Your task to perform on an android device: turn off wifi Image 0: 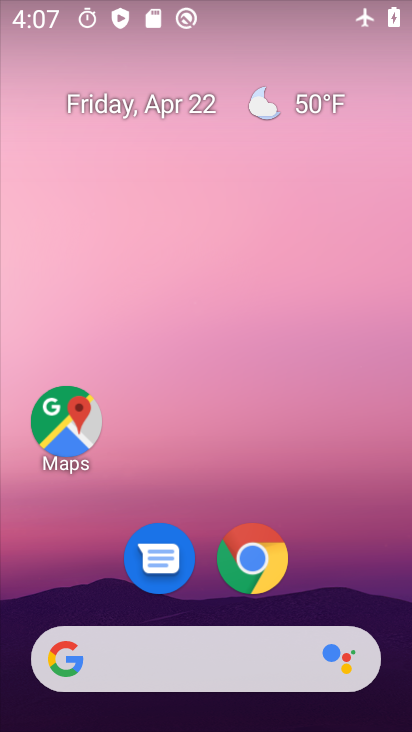
Step 0: drag from (283, 346) to (285, 184)
Your task to perform on an android device: turn off wifi Image 1: 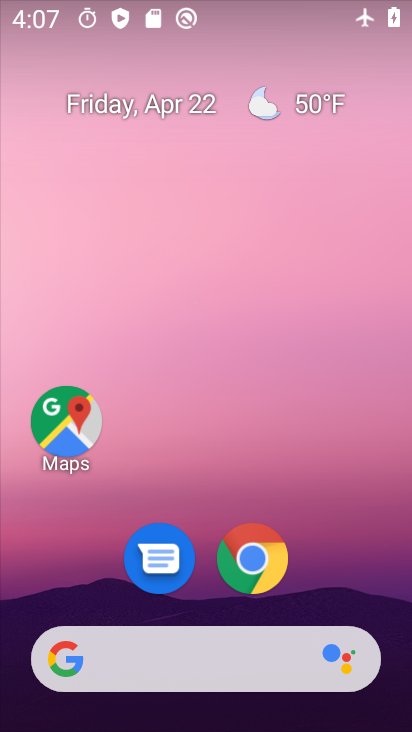
Step 1: drag from (330, 545) to (334, 40)
Your task to perform on an android device: turn off wifi Image 2: 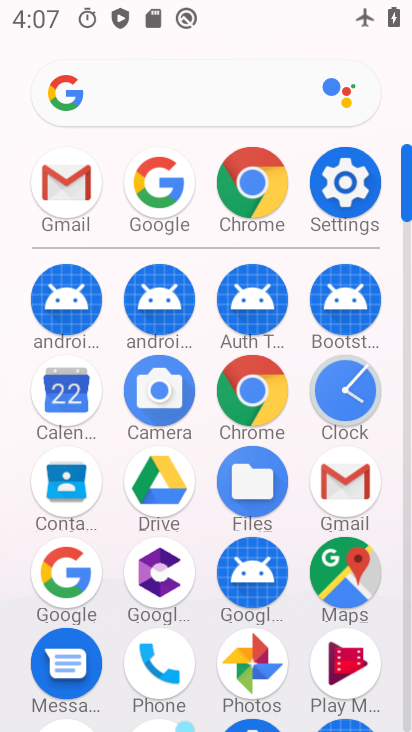
Step 2: click (346, 207)
Your task to perform on an android device: turn off wifi Image 3: 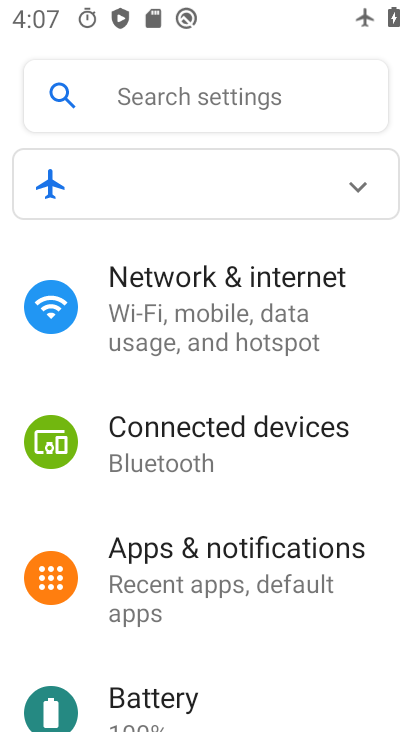
Step 3: click (220, 316)
Your task to perform on an android device: turn off wifi Image 4: 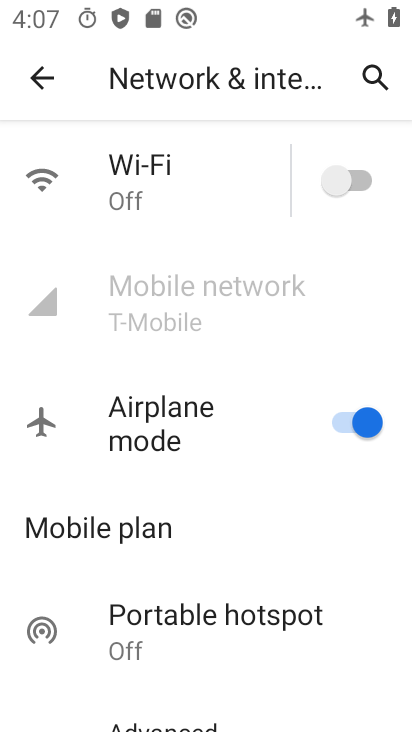
Step 4: task complete